Your task to perform on an android device: open app "WhatsApp Messenger" Image 0: 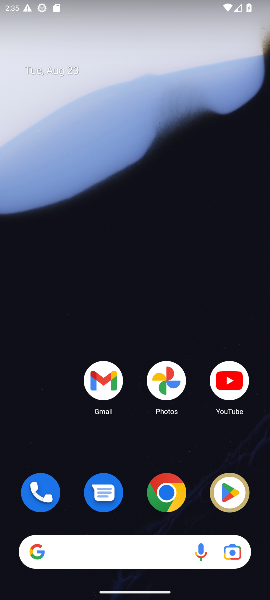
Step 0: drag from (134, 522) to (145, 30)
Your task to perform on an android device: open app "WhatsApp Messenger" Image 1: 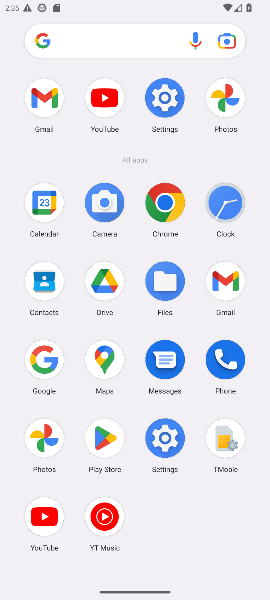
Step 1: click (106, 437)
Your task to perform on an android device: open app "WhatsApp Messenger" Image 2: 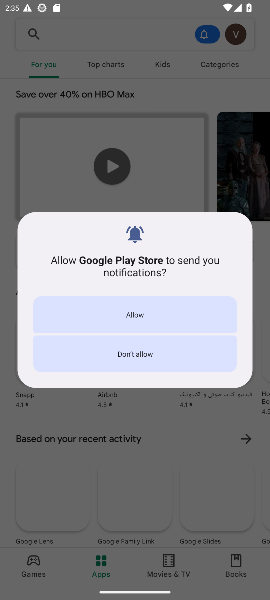
Step 2: click (117, 322)
Your task to perform on an android device: open app "WhatsApp Messenger" Image 3: 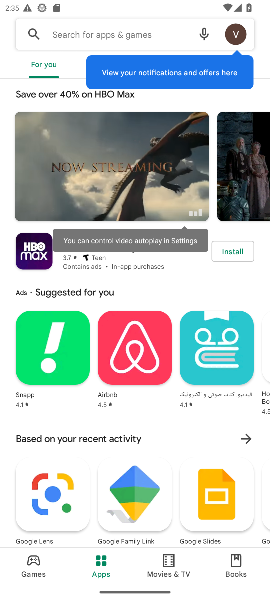
Step 3: click (132, 27)
Your task to perform on an android device: open app "WhatsApp Messenger" Image 4: 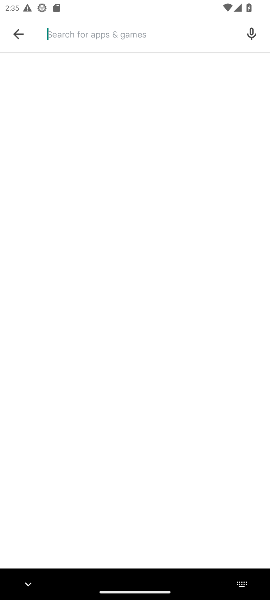
Step 4: type "whatsapp"
Your task to perform on an android device: open app "WhatsApp Messenger" Image 5: 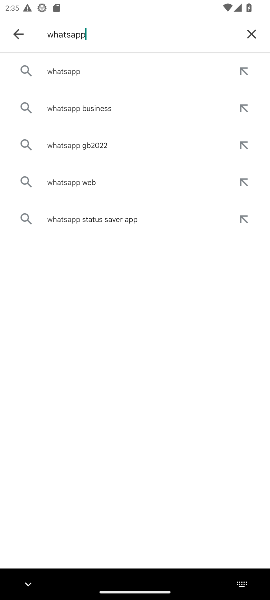
Step 5: click (94, 77)
Your task to perform on an android device: open app "WhatsApp Messenger" Image 6: 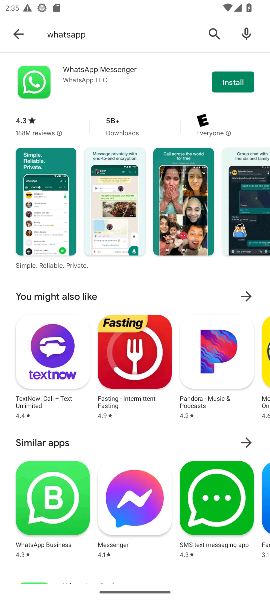
Step 6: click (228, 82)
Your task to perform on an android device: open app "WhatsApp Messenger" Image 7: 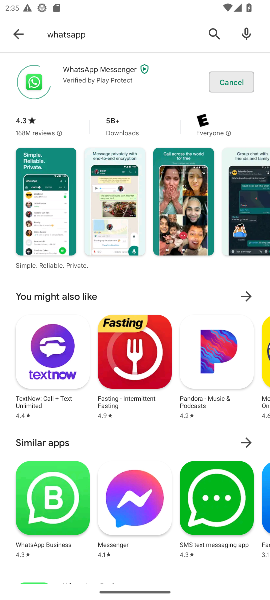
Step 7: task complete